Your task to perform on an android device: toggle improve location accuracy Image 0: 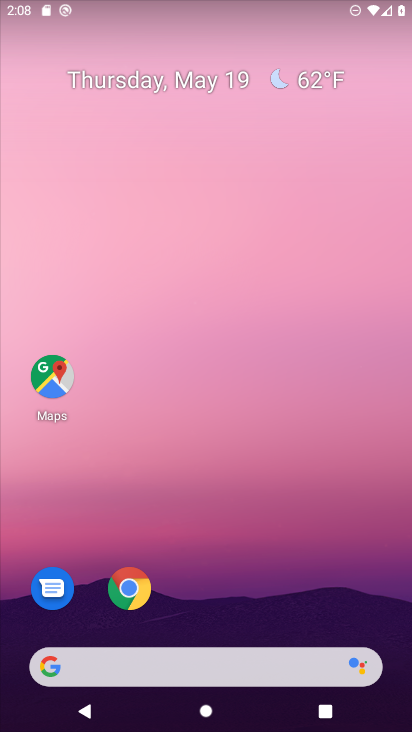
Step 0: drag from (359, 633) to (309, 0)
Your task to perform on an android device: toggle improve location accuracy Image 1: 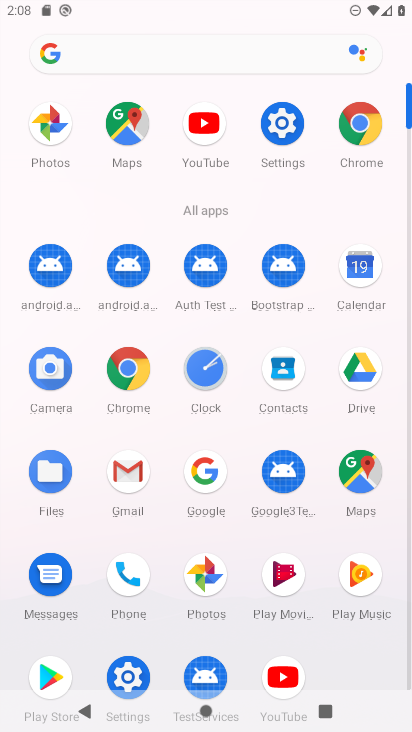
Step 1: click (285, 117)
Your task to perform on an android device: toggle improve location accuracy Image 2: 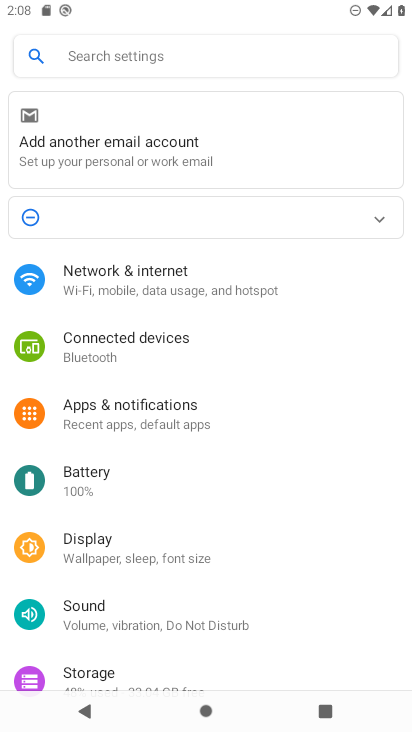
Step 2: drag from (286, 596) to (284, 268)
Your task to perform on an android device: toggle improve location accuracy Image 3: 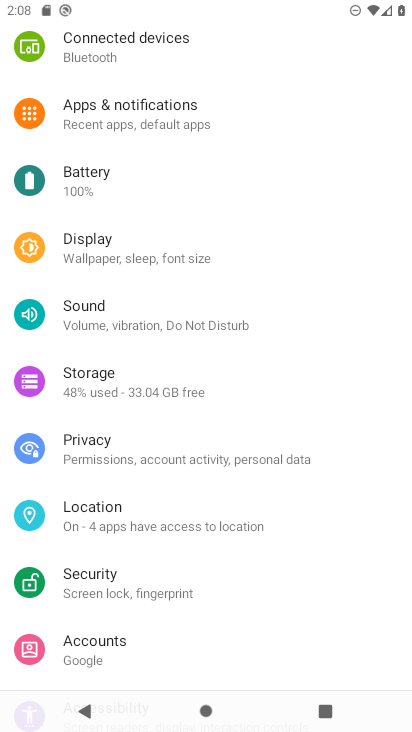
Step 3: click (84, 506)
Your task to perform on an android device: toggle improve location accuracy Image 4: 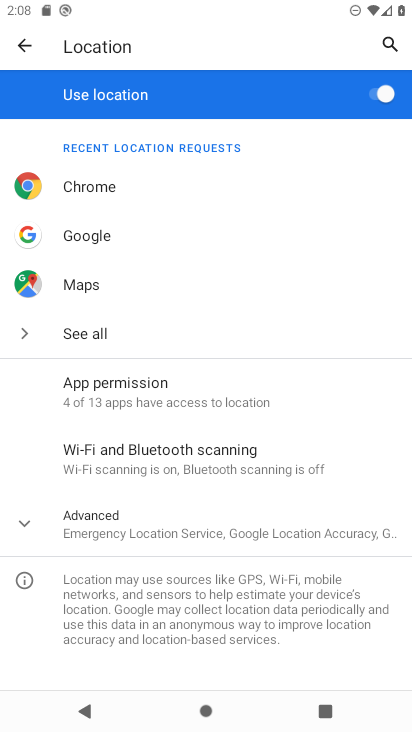
Step 4: click (30, 525)
Your task to perform on an android device: toggle improve location accuracy Image 5: 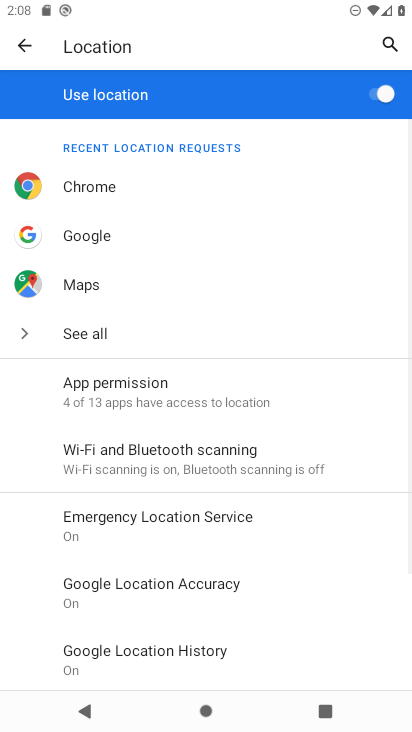
Step 5: click (135, 583)
Your task to perform on an android device: toggle improve location accuracy Image 6: 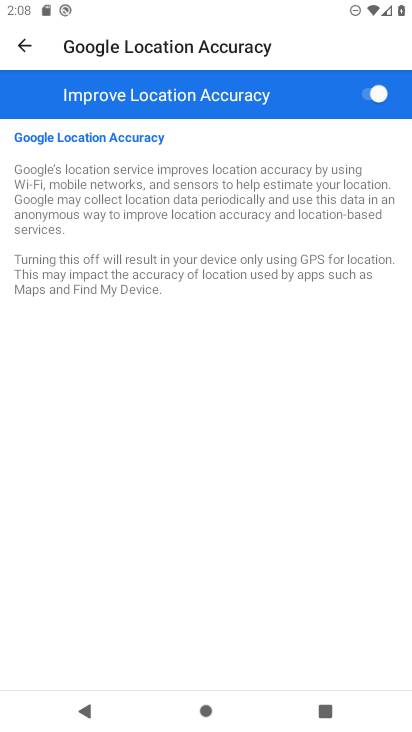
Step 6: click (373, 95)
Your task to perform on an android device: toggle improve location accuracy Image 7: 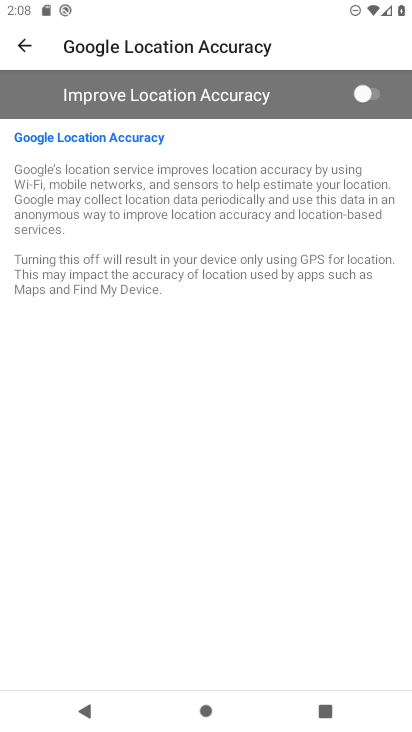
Step 7: task complete